Your task to perform on an android device: Open calendar and show me the first week of next month Image 0: 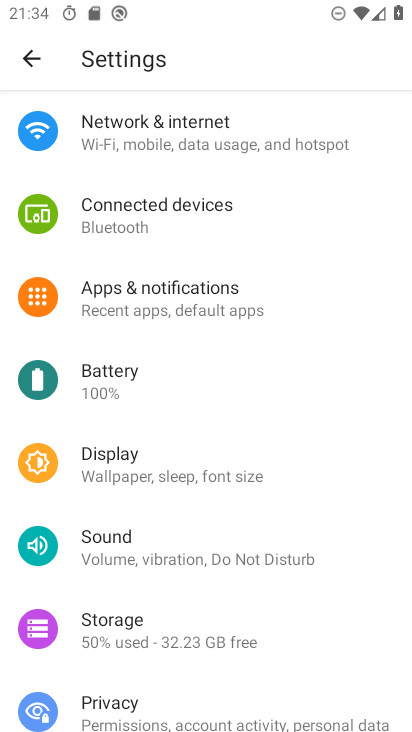
Step 0: press home button
Your task to perform on an android device: Open calendar and show me the first week of next month Image 1: 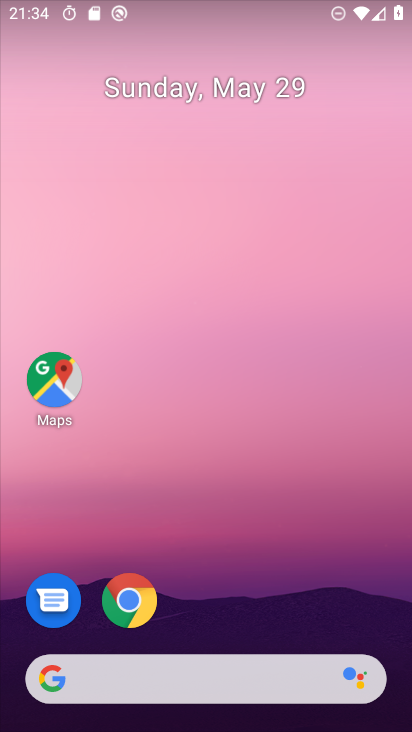
Step 1: drag from (328, 596) to (317, 179)
Your task to perform on an android device: Open calendar and show me the first week of next month Image 2: 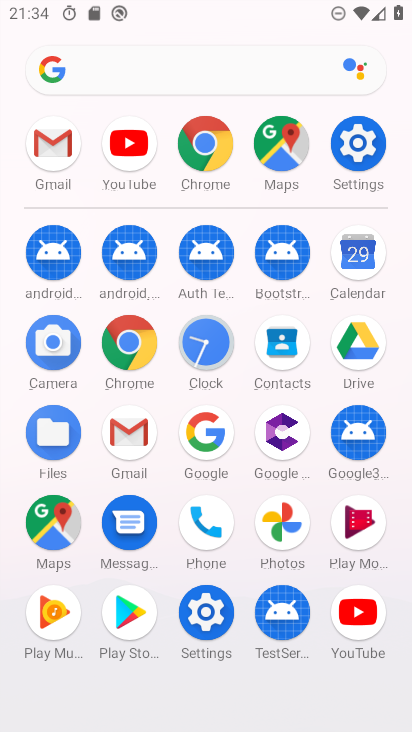
Step 2: click (366, 246)
Your task to perform on an android device: Open calendar and show me the first week of next month Image 3: 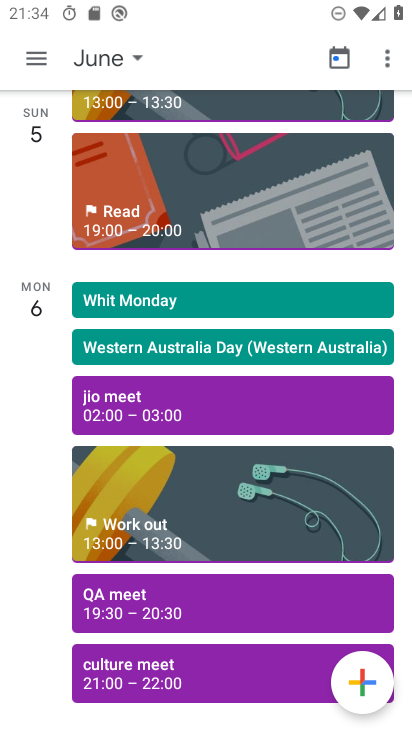
Step 3: click (98, 53)
Your task to perform on an android device: Open calendar and show me the first week of next month Image 4: 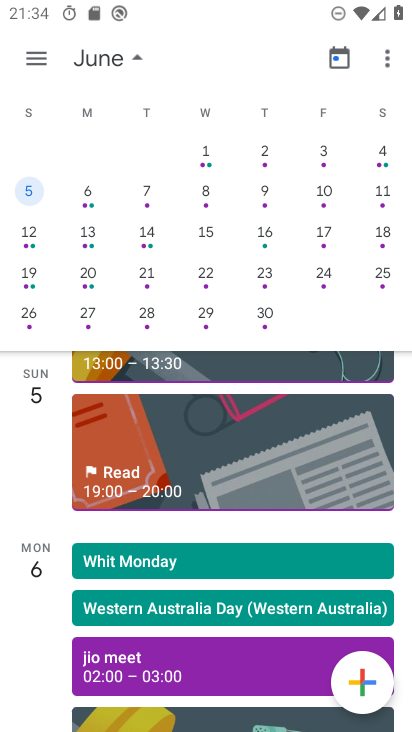
Step 4: click (210, 158)
Your task to perform on an android device: Open calendar and show me the first week of next month Image 5: 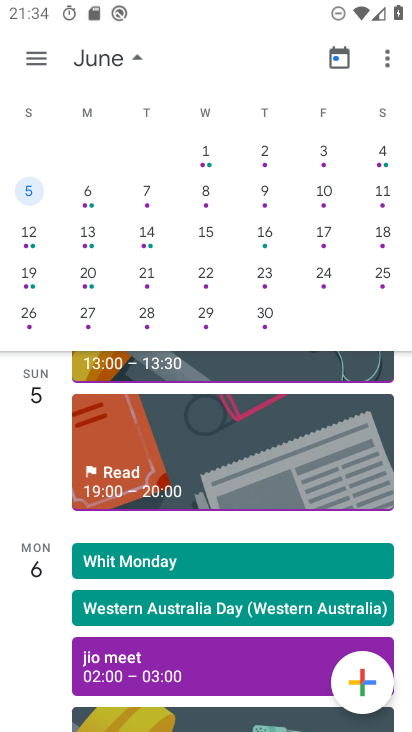
Step 5: click (207, 153)
Your task to perform on an android device: Open calendar and show me the first week of next month Image 6: 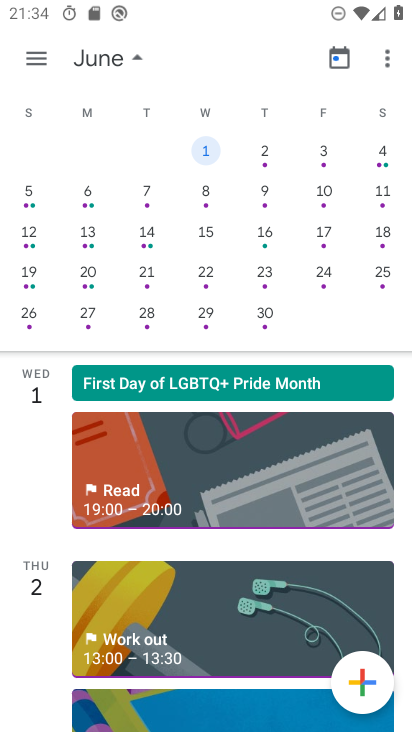
Step 6: task complete